Your task to perform on an android device: turn on sleep mode Image 0: 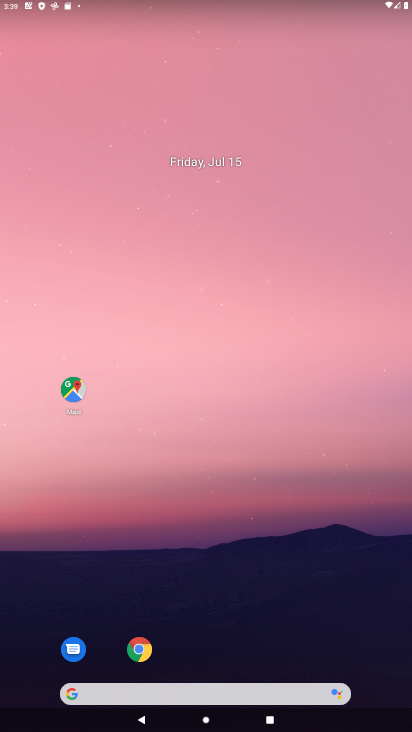
Step 0: drag from (304, 599) to (319, 68)
Your task to perform on an android device: turn on sleep mode Image 1: 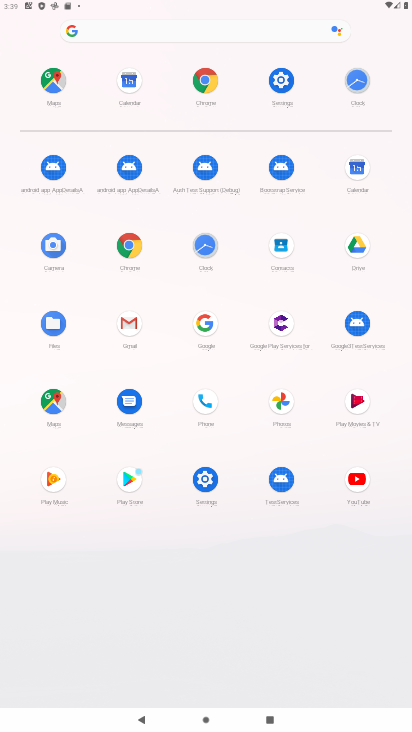
Step 1: click (290, 80)
Your task to perform on an android device: turn on sleep mode Image 2: 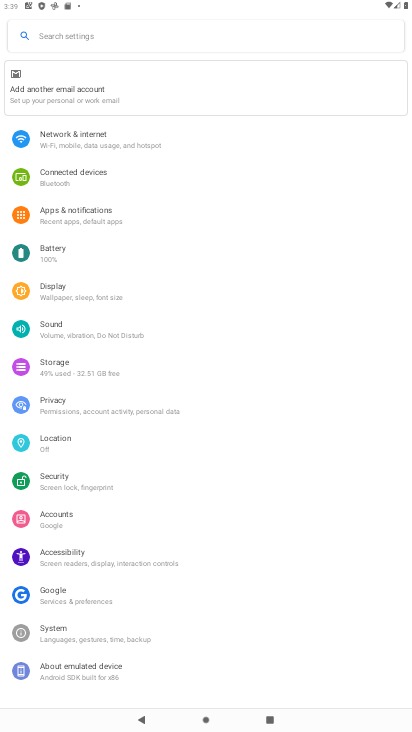
Step 2: click (98, 293)
Your task to perform on an android device: turn on sleep mode Image 3: 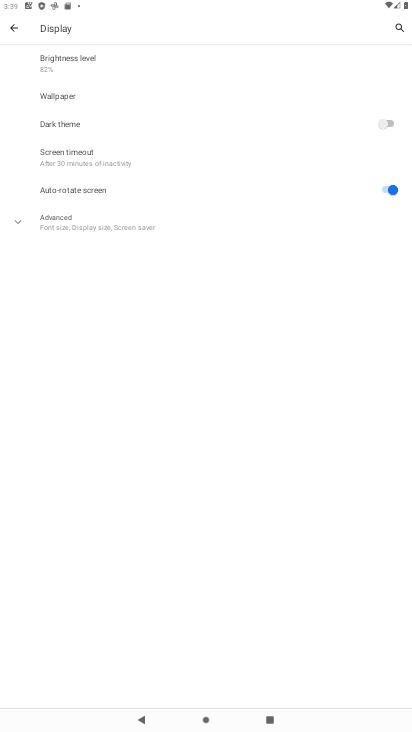
Step 3: task complete